Your task to perform on an android device: open sync settings in chrome Image 0: 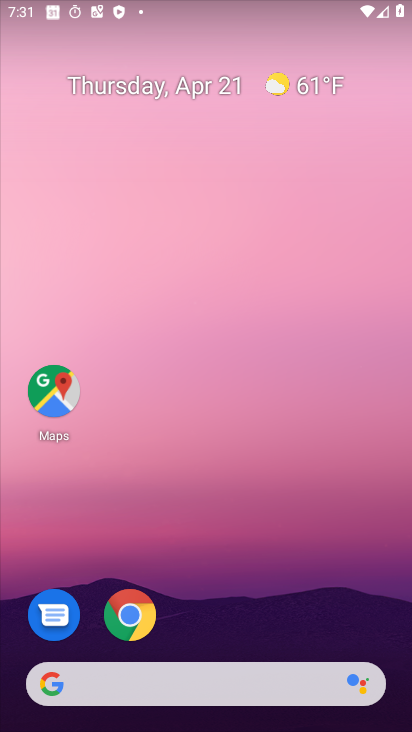
Step 0: click (411, 396)
Your task to perform on an android device: open sync settings in chrome Image 1: 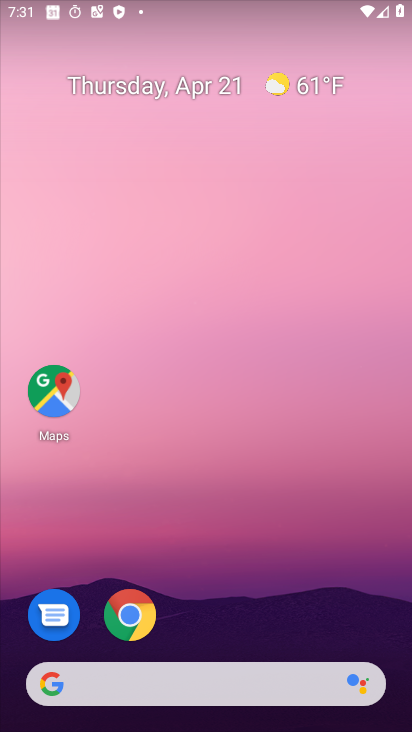
Step 1: drag from (196, 637) to (312, 169)
Your task to perform on an android device: open sync settings in chrome Image 2: 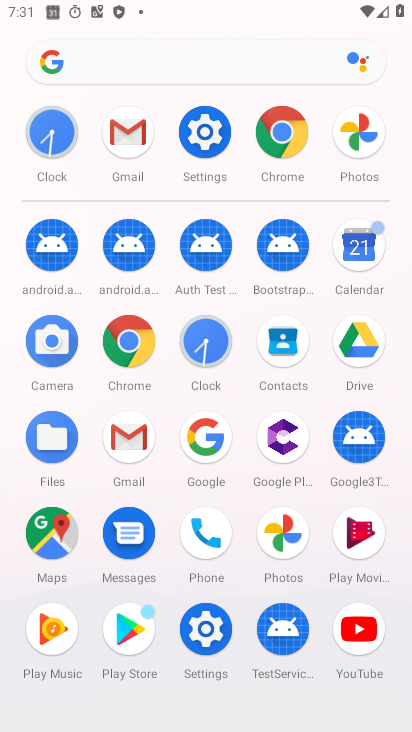
Step 2: click (117, 339)
Your task to perform on an android device: open sync settings in chrome Image 3: 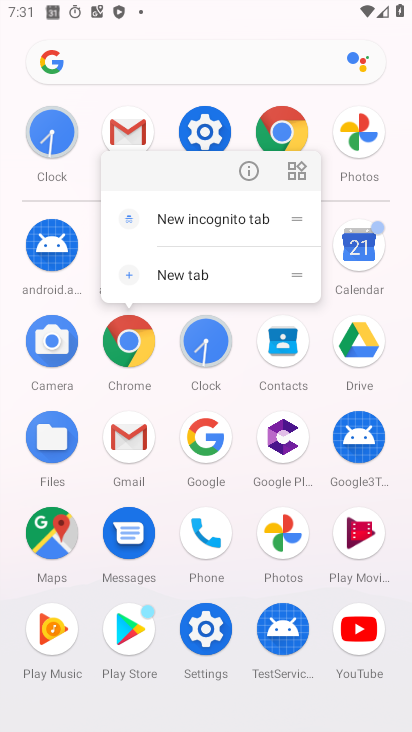
Step 3: click (248, 173)
Your task to perform on an android device: open sync settings in chrome Image 4: 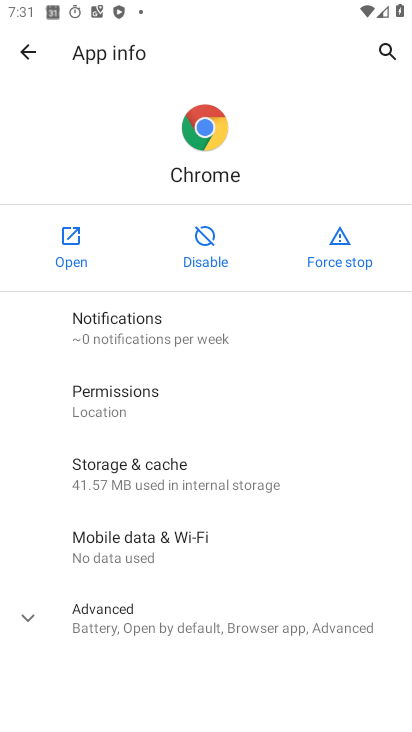
Step 4: click (77, 259)
Your task to perform on an android device: open sync settings in chrome Image 5: 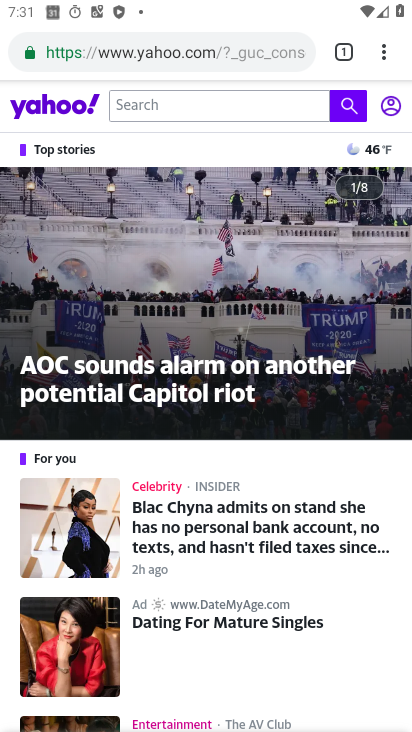
Step 5: drag from (383, 50) to (237, 661)
Your task to perform on an android device: open sync settings in chrome Image 6: 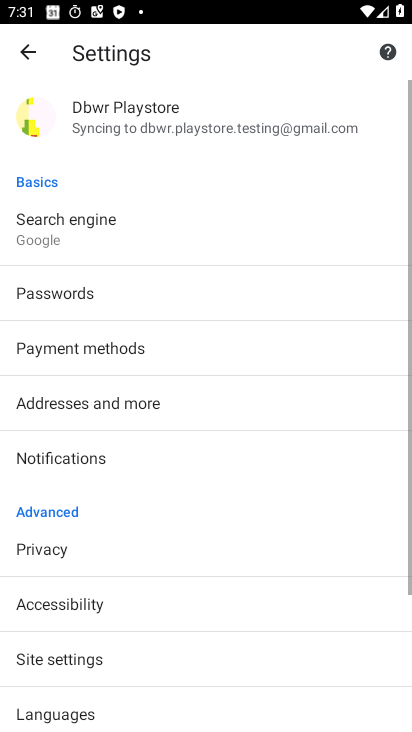
Step 6: drag from (184, 674) to (269, 171)
Your task to perform on an android device: open sync settings in chrome Image 7: 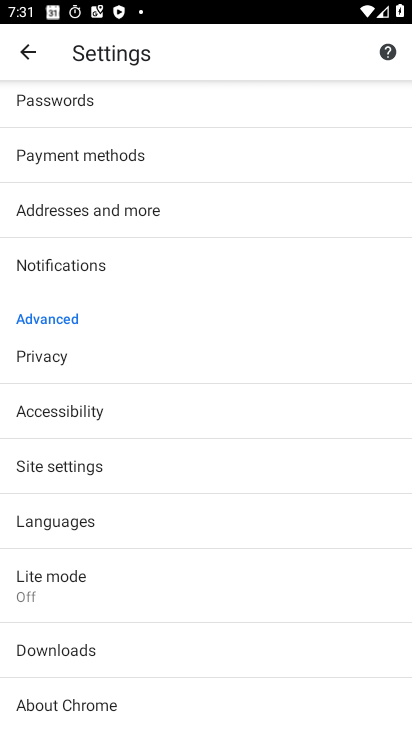
Step 7: click (101, 453)
Your task to perform on an android device: open sync settings in chrome Image 8: 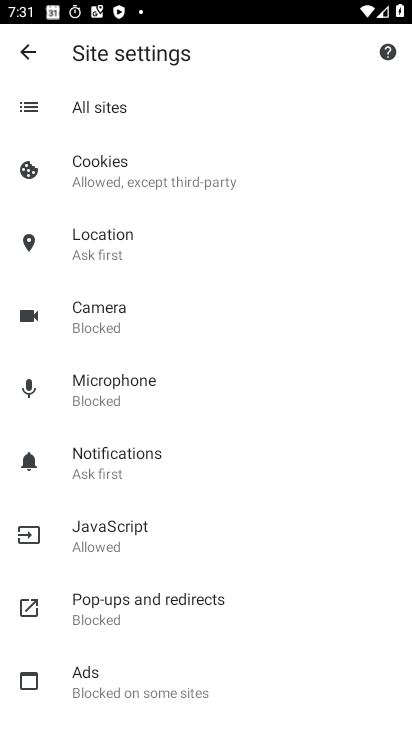
Step 8: drag from (208, 639) to (263, 117)
Your task to perform on an android device: open sync settings in chrome Image 9: 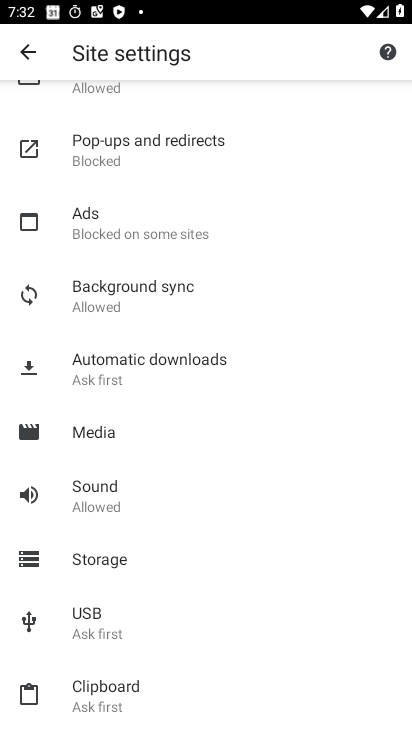
Step 9: click (119, 291)
Your task to perform on an android device: open sync settings in chrome Image 10: 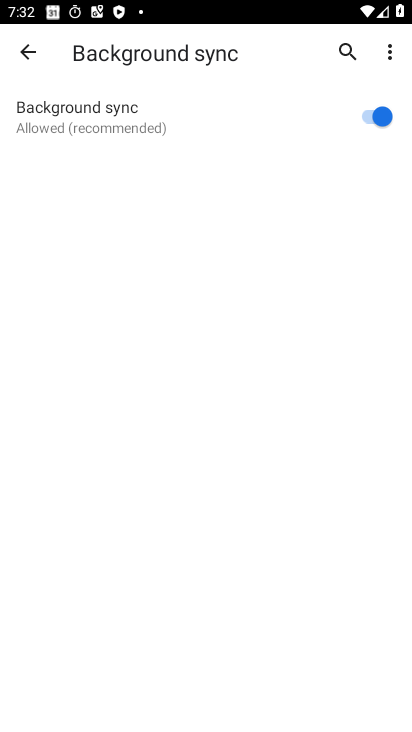
Step 10: task complete